Your task to perform on an android device: Open accessibility settings Image 0: 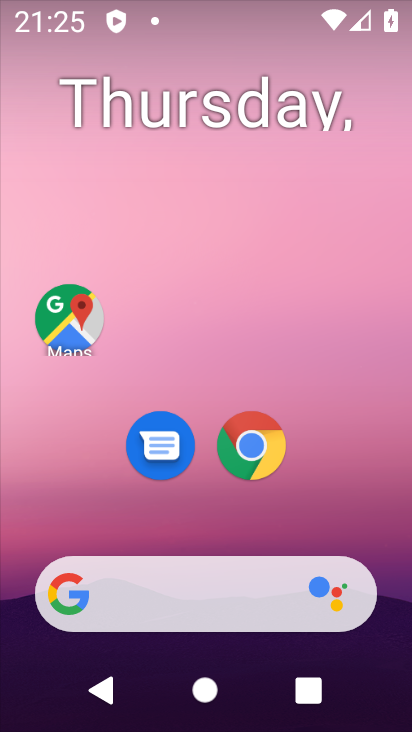
Step 0: drag from (81, 487) to (299, 188)
Your task to perform on an android device: Open accessibility settings Image 1: 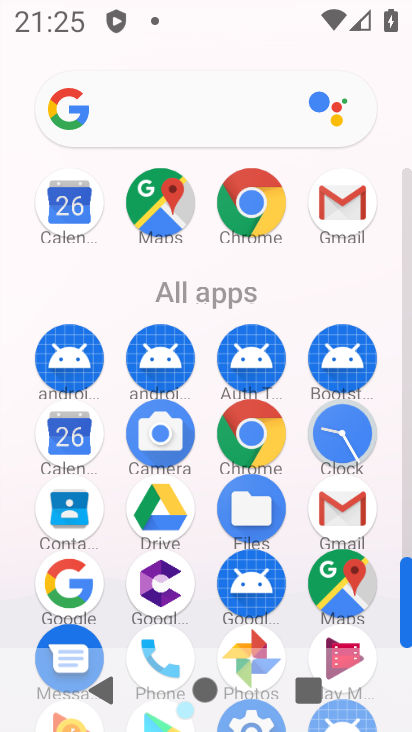
Step 1: drag from (13, 532) to (168, 253)
Your task to perform on an android device: Open accessibility settings Image 2: 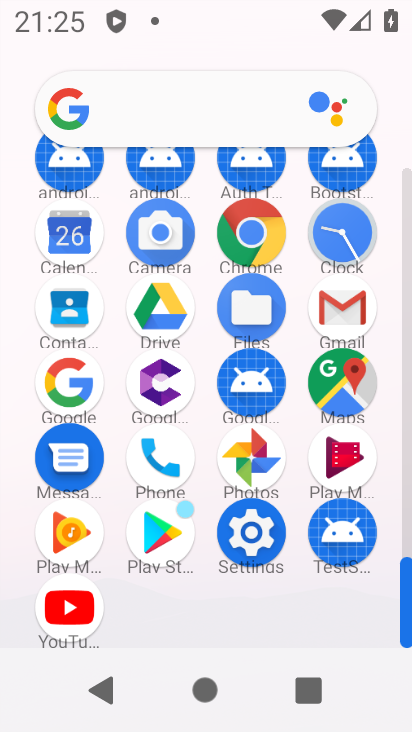
Step 2: click (263, 524)
Your task to perform on an android device: Open accessibility settings Image 3: 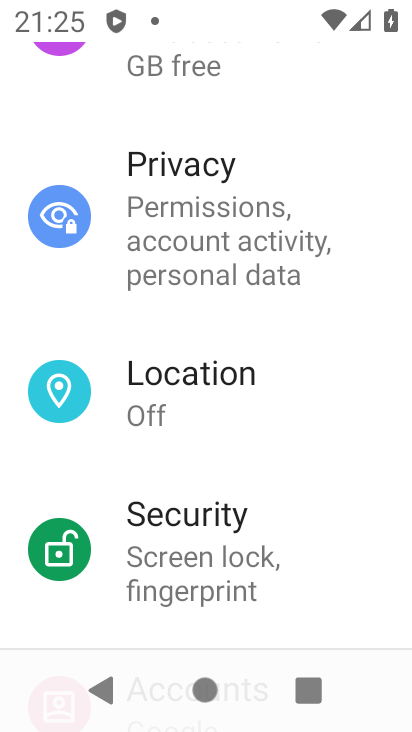
Step 3: drag from (20, 479) to (123, 250)
Your task to perform on an android device: Open accessibility settings Image 4: 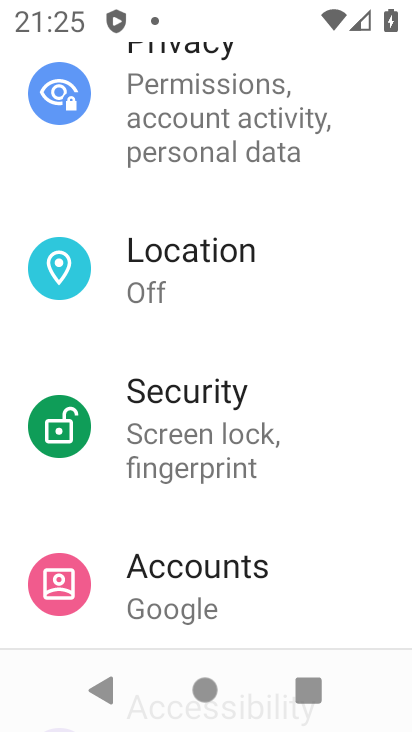
Step 4: drag from (30, 410) to (176, 216)
Your task to perform on an android device: Open accessibility settings Image 5: 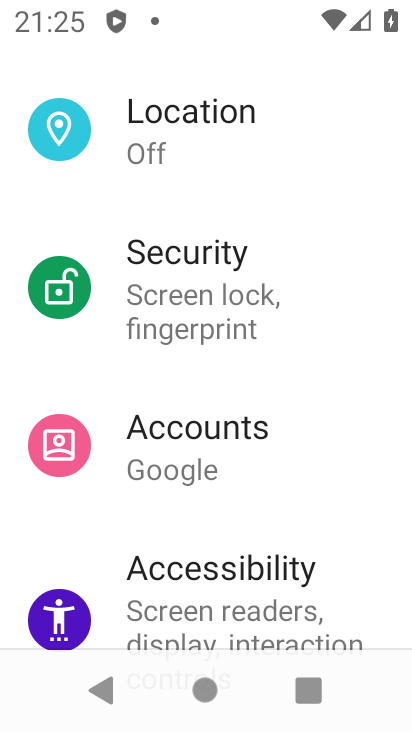
Step 5: click (145, 608)
Your task to perform on an android device: Open accessibility settings Image 6: 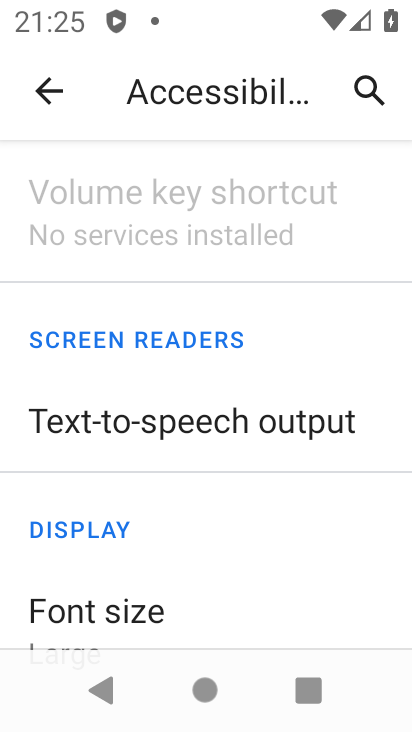
Step 6: task complete